Your task to perform on an android device: open chrome privacy settings Image 0: 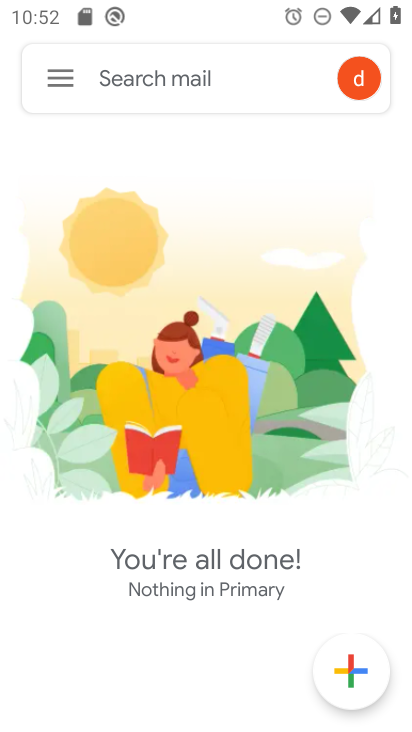
Step 0: press home button
Your task to perform on an android device: open chrome privacy settings Image 1: 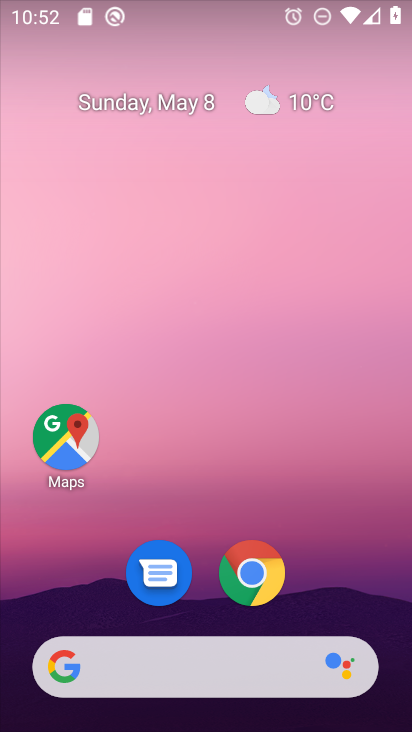
Step 1: drag from (319, 563) to (297, 190)
Your task to perform on an android device: open chrome privacy settings Image 2: 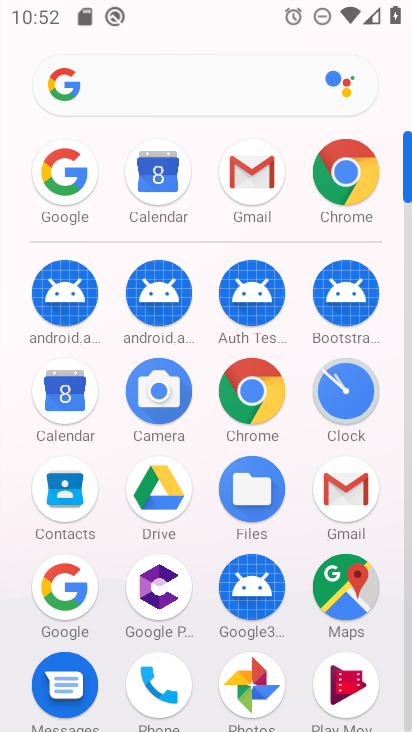
Step 2: click (407, 726)
Your task to perform on an android device: open chrome privacy settings Image 3: 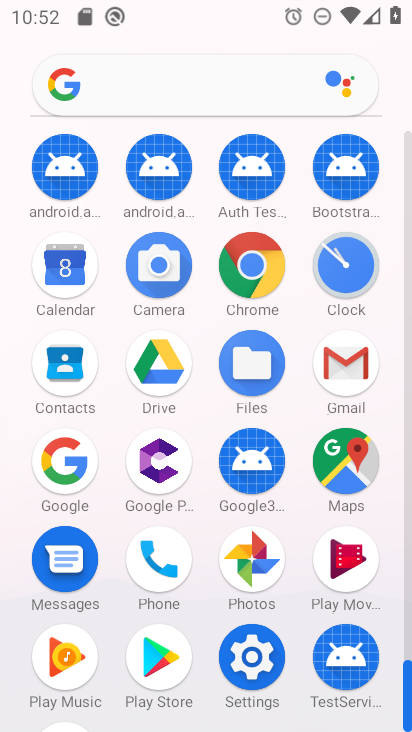
Step 3: click (247, 657)
Your task to perform on an android device: open chrome privacy settings Image 4: 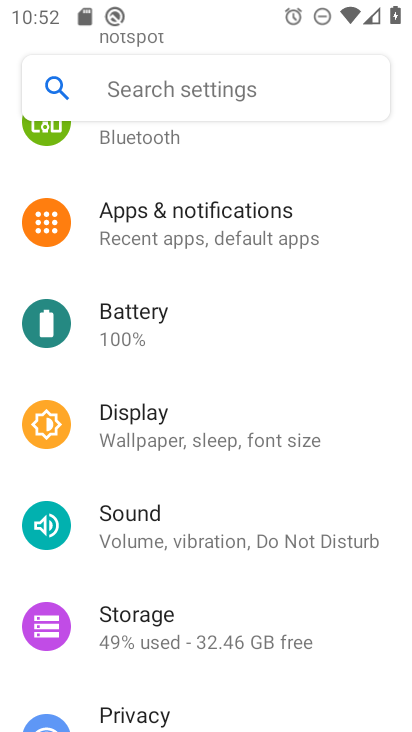
Step 4: press home button
Your task to perform on an android device: open chrome privacy settings Image 5: 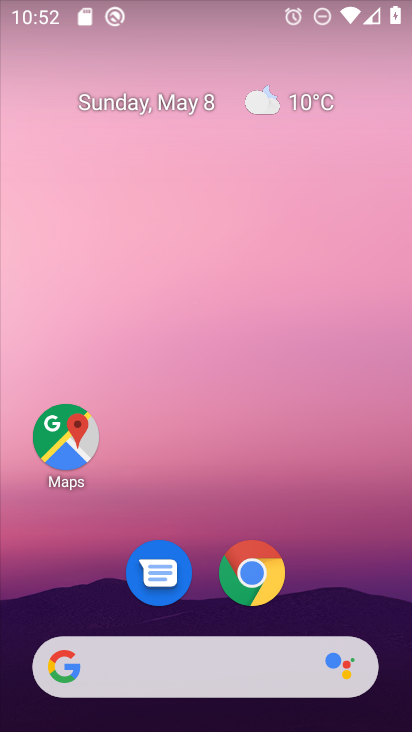
Step 5: drag from (336, 590) to (341, 71)
Your task to perform on an android device: open chrome privacy settings Image 6: 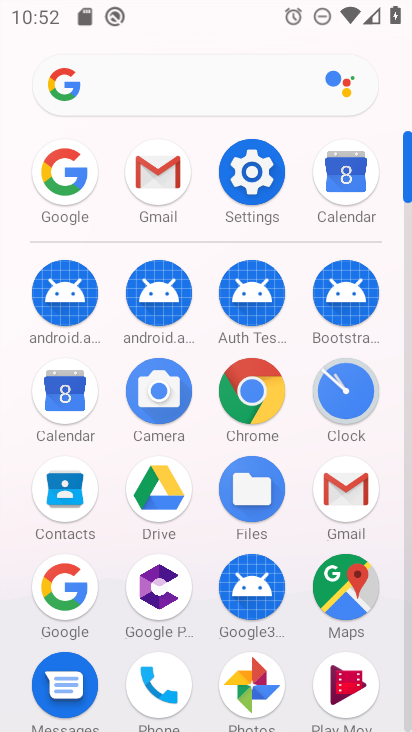
Step 6: click (241, 399)
Your task to perform on an android device: open chrome privacy settings Image 7: 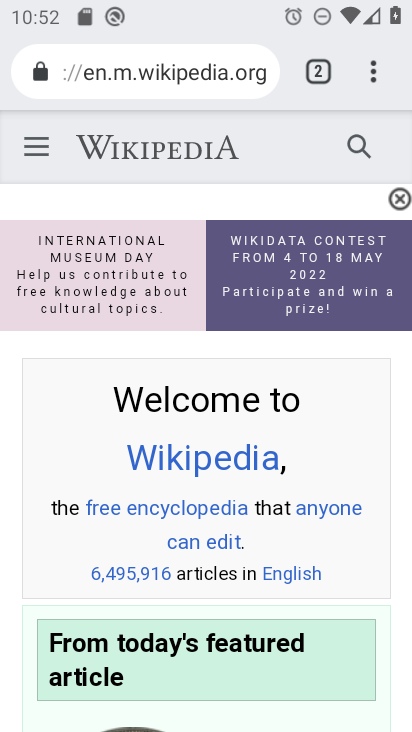
Step 7: drag from (360, 64) to (225, 597)
Your task to perform on an android device: open chrome privacy settings Image 8: 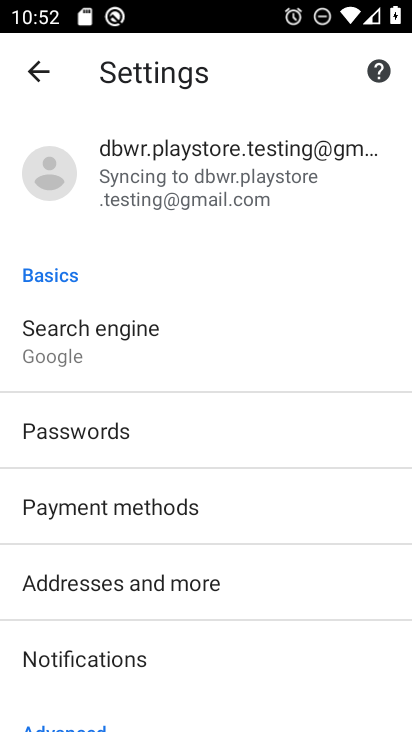
Step 8: drag from (253, 641) to (324, 185)
Your task to perform on an android device: open chrome privacy settings Image 9: 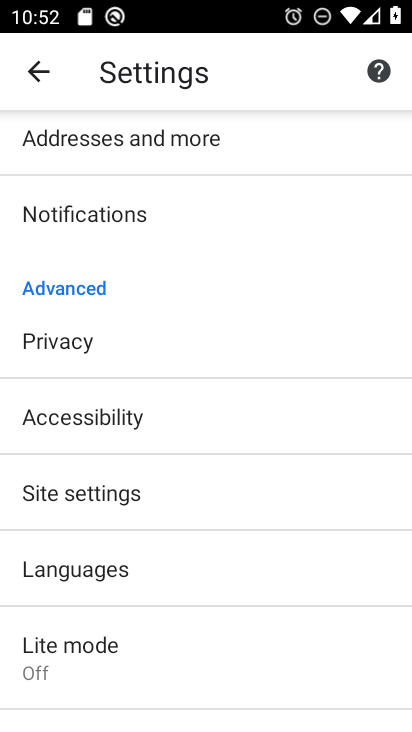
Step 9: click (99, 327)
Your task to perform on an android device: open chrome privacy settings Image 10: 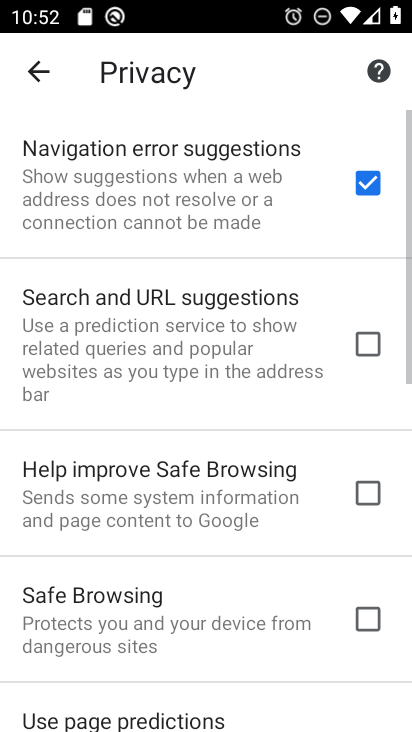
Step 10: task complete